Your task to perform on an android device: turn off priority inbox in the gmail app Image 0: 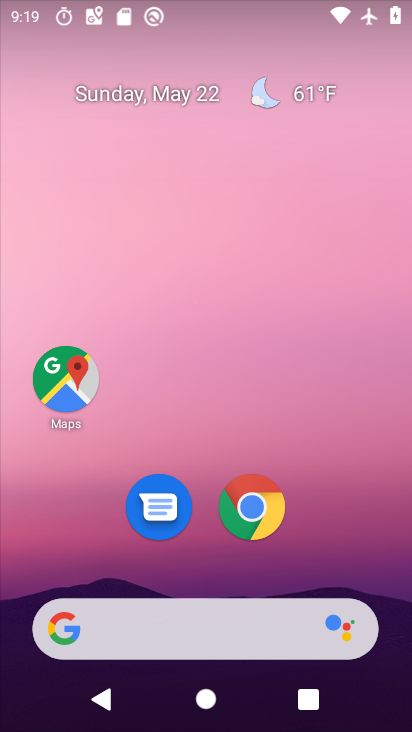
Step 0: drag from (224, 575) to (307, 18)
Your task to perform on an android device: turn off priority inbox in the gmail app Image 1: 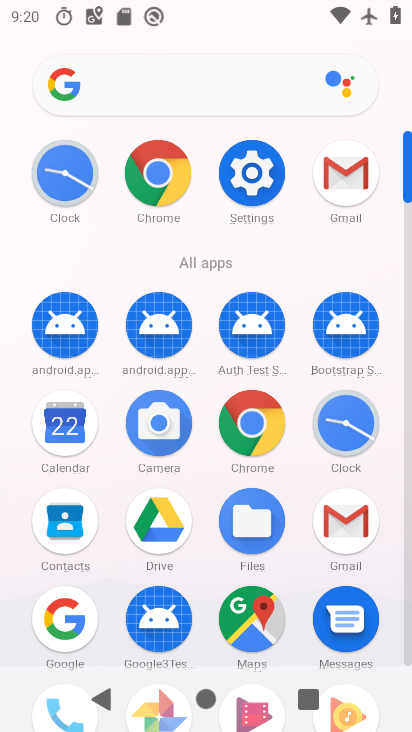
Step 1: click (335, 523)
Your task to perform on an android device: turn off priority inbox in the gmail app Image 2: 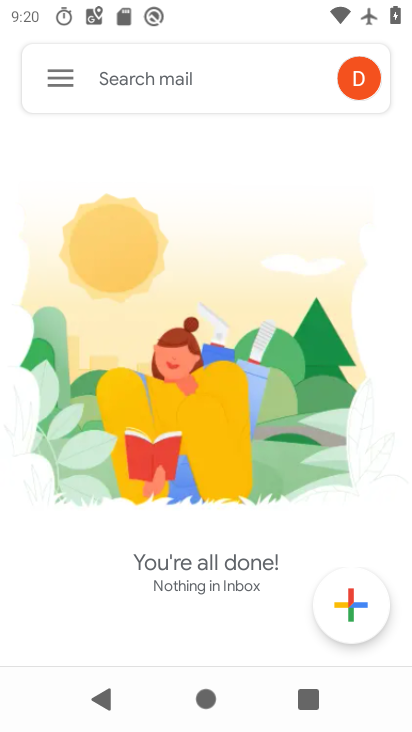
Step 2: click (57, 86)
Your task to perform on an android device: turn off priority inbox in the gmail app Image 3: 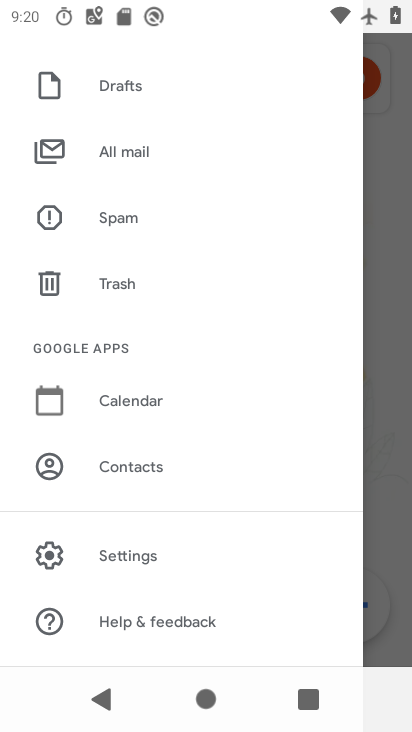
Step 3: click (133, 559)
Your task to perform on an android device: turn off priority inbox in the gmail app Image 4: 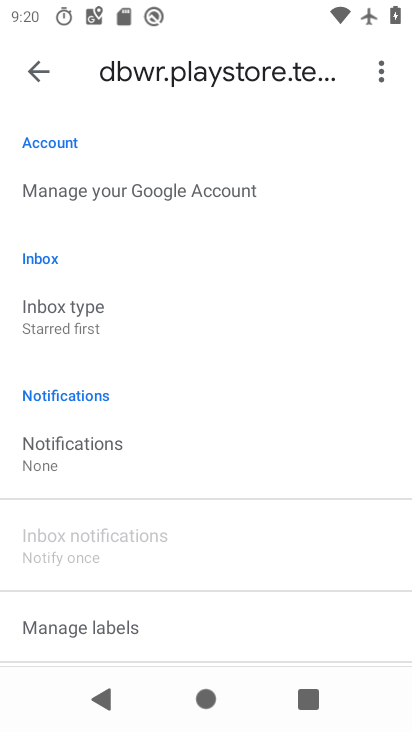
Step 4: click (123, 321)
Your task to perform on an android device: turn off priority inbox in the gmail app Image 5: 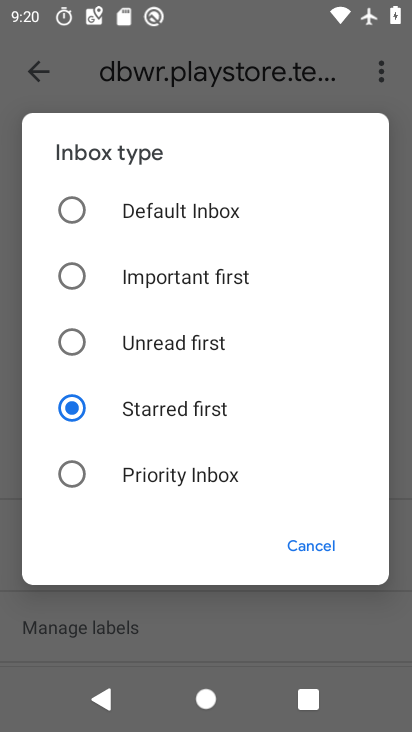
Step 5: click (182, 253)
Your task to perform on an android device: turn off priority inbox in the gmail app Image 6: 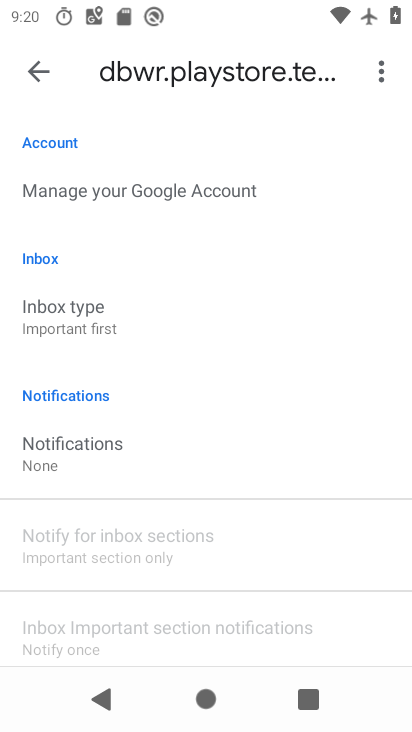
Step 6: task complete